Your task to perform on an android device: change text size in settings app Image 0: 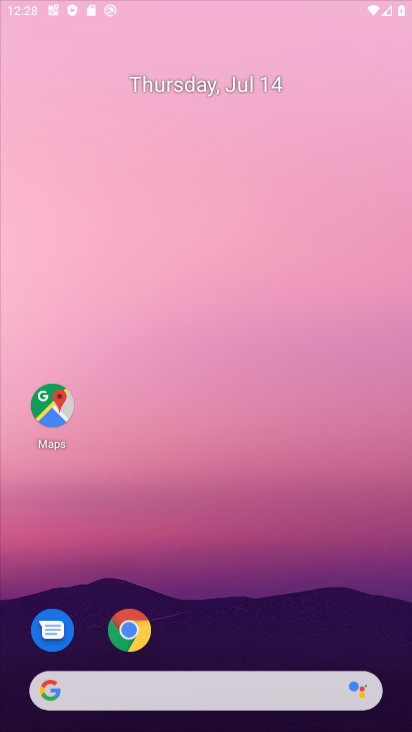
Step 0: click (167, 180)
Your task to perform on an android device: change text size in settings app Image 1: 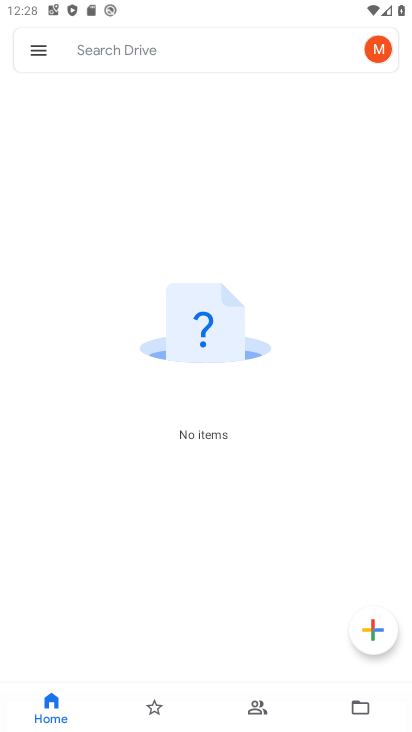
Step 1: press home button
Your task to perform on an android device: change text size in settings app Image 2: 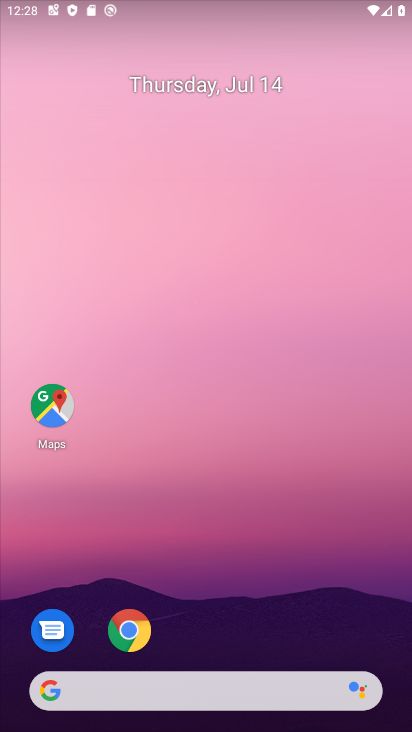
Step 2: drag from (217, 660) to (179, 61)
Your task to perform on an android device: change text size in settings app Image 3: 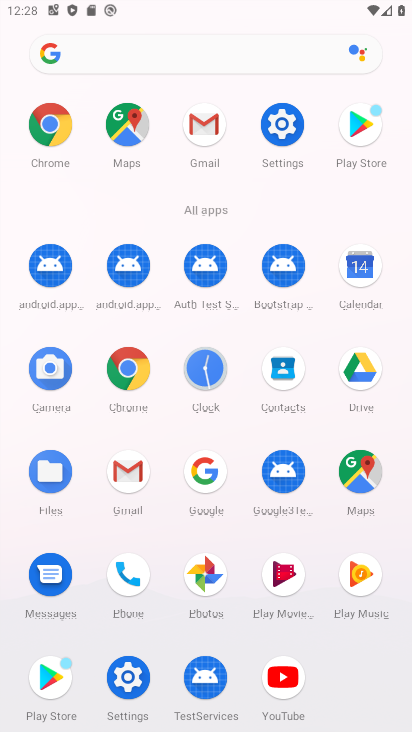
Step 3: click (286, 124)
Your task to perform on an android device: change text size in settings app Image 4: 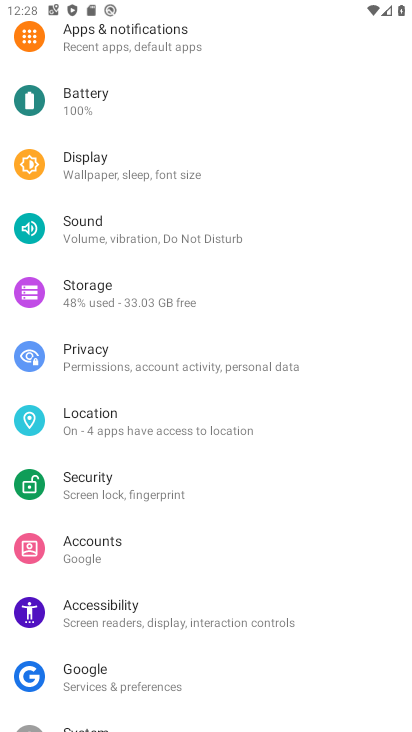
Step 4: click (111, 629)
Your task to perform on an android device: change text size in settings app Image 5: 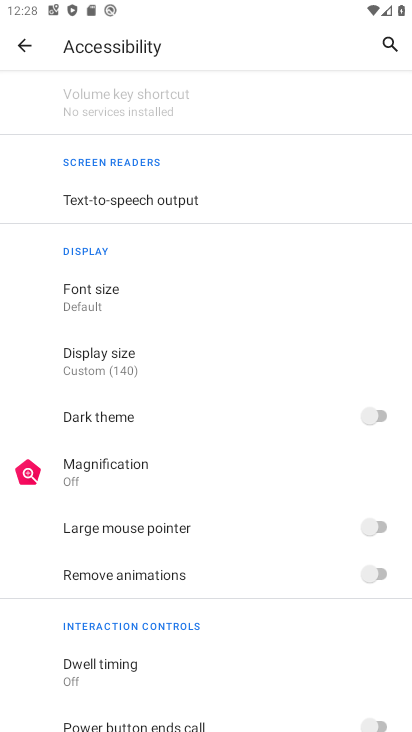
Step 5: click (106, 292)
Your task to perform on an android device: change text size in settings app Image 6: 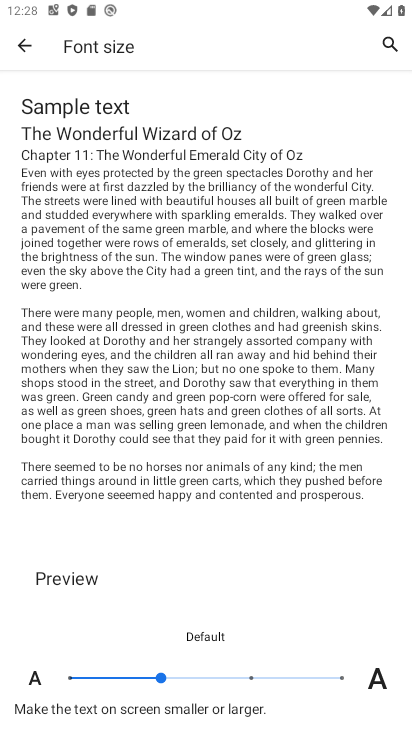
Step 6: click (252, 672)
Your task to perform on an android device: change text size in settings app Image 7: 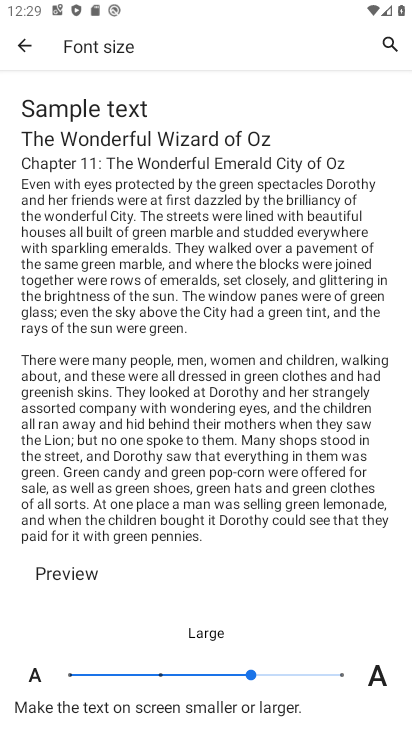
Step 7: task complete